Your task to perform on an android device: add a contact Image 0: 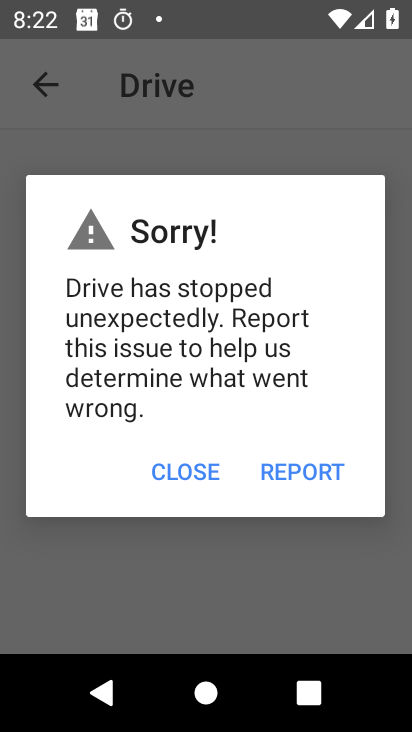
Step 0: press home button
Your task to perform on an android device: add a contact Image 1: 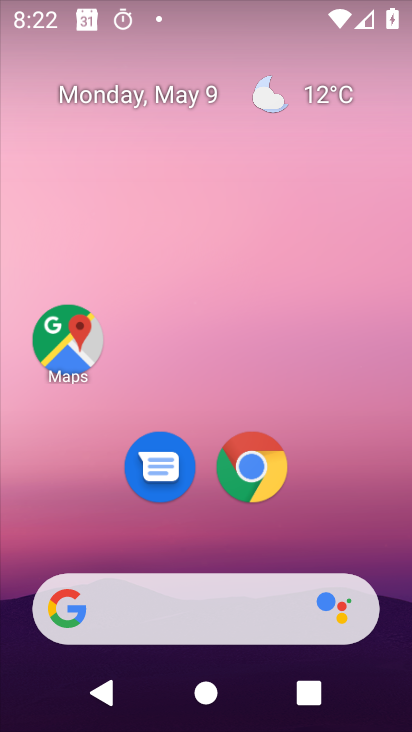
Step 1: drag from (374, 565) to (349, 5)
Your task to perform on an android device: add a contact Image 2: 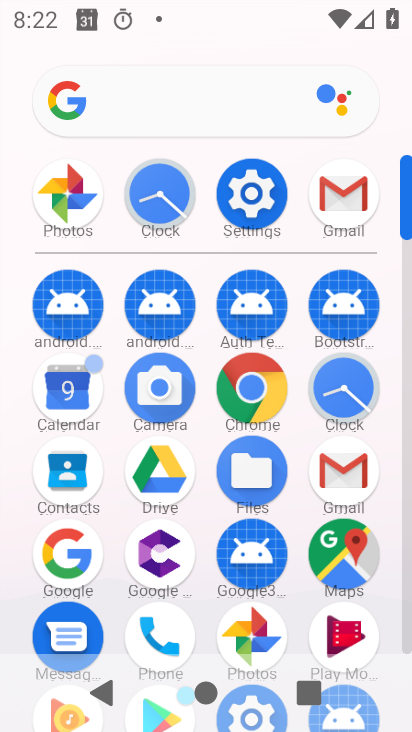
Step 2: click (75, 470)
Your task to perform on an android device: add a contact Image 3: 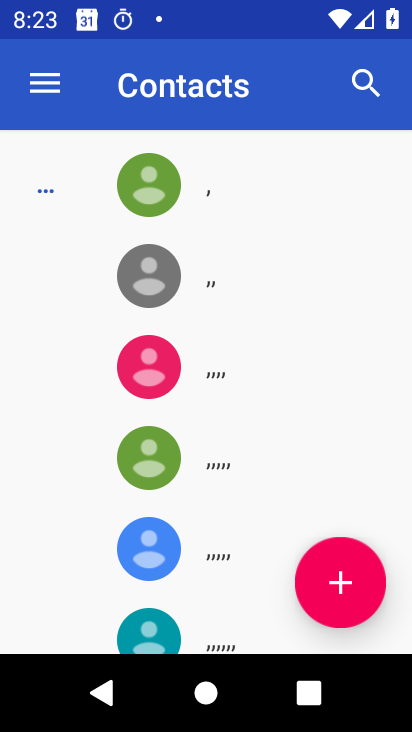
Step 3: click (339, 593)
Your task to perform on an android device: add a contact Image 4: 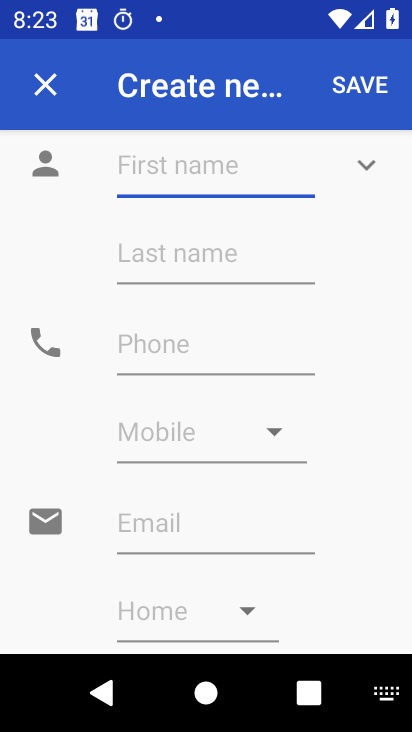
Step 4: click (143, 168)
Your task to perform on an android device: add a contact Image 5: 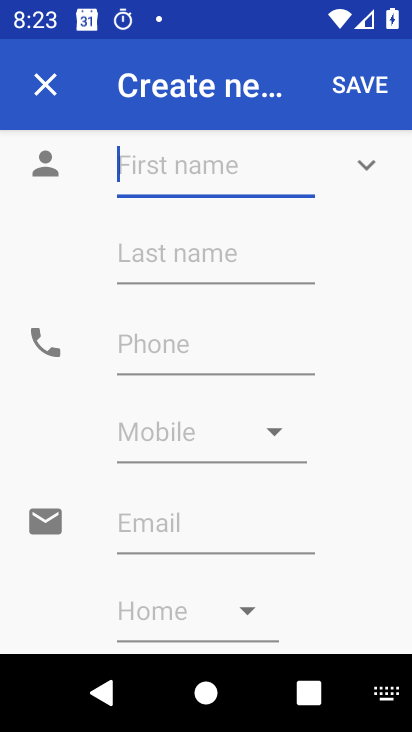
Step 5: type "tomy"
Your task to perform on an android device: add a contact Image 6: 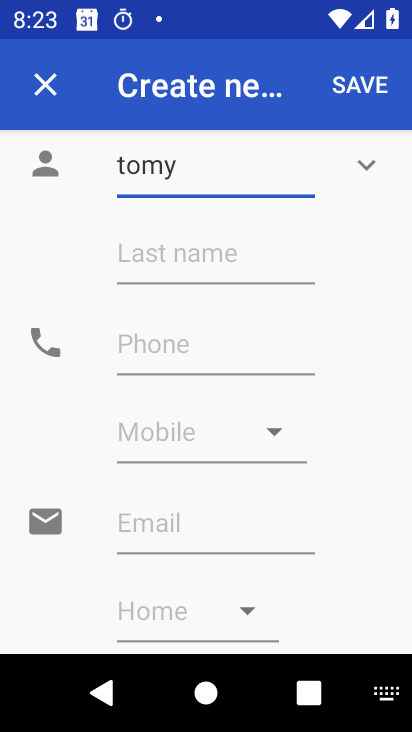
Step 6: click (188, 337)
Your task to perform on an android device: add a contact Image 7: 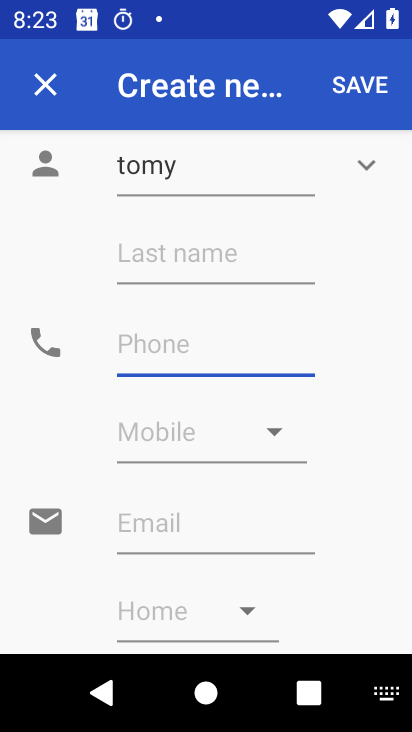
Step 7: type "7363535254263"
Your task to perform on an android device: add a contact Image 8: 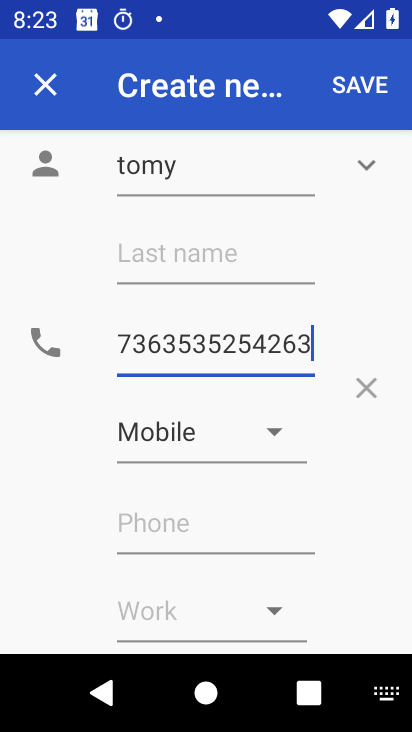
Step 8: click (363, 85)
Your task to perform on an android device: add a contact Image 9: 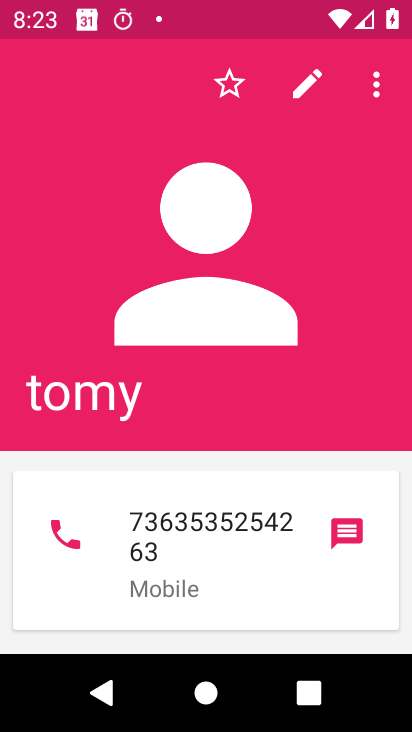
Step 9: task complete